Your task to perform on an android device: turn off location history Image 0: 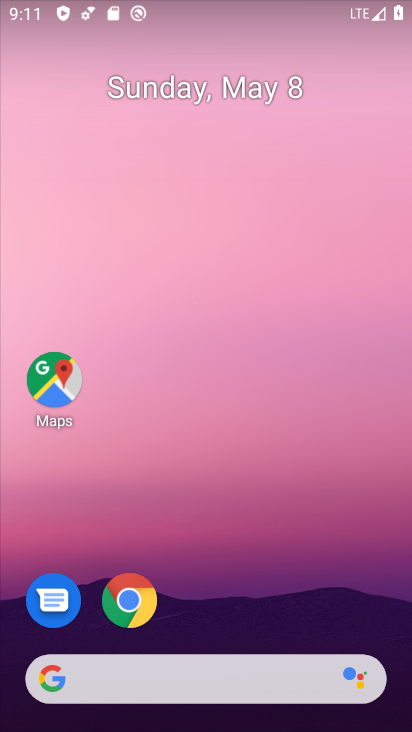
Step 0: click (58, 382)
Your task to perform on an android device: turn off location history Image 1: 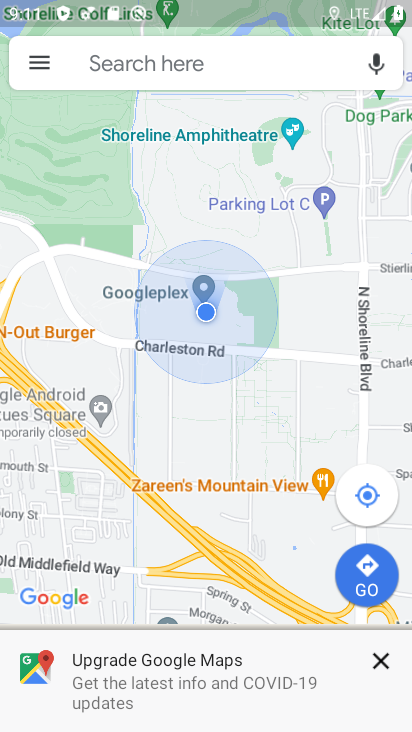
Step 1: click (37, 63)
Your task to perform on an android device: turn off location history Image 2: 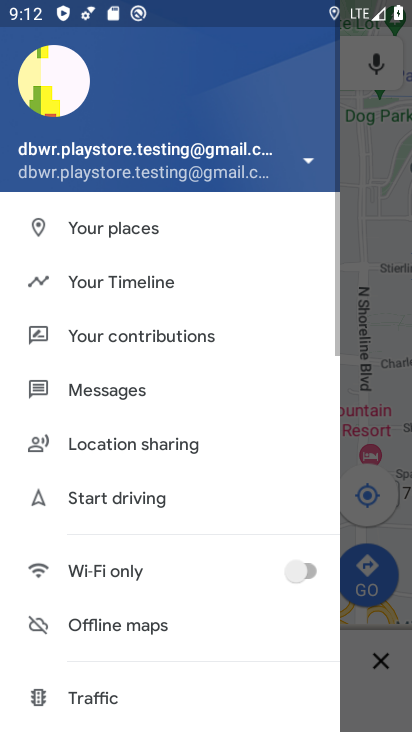
Step 2: click (75, 277)
Your task to perform on an android device: turn off location history Image 3: 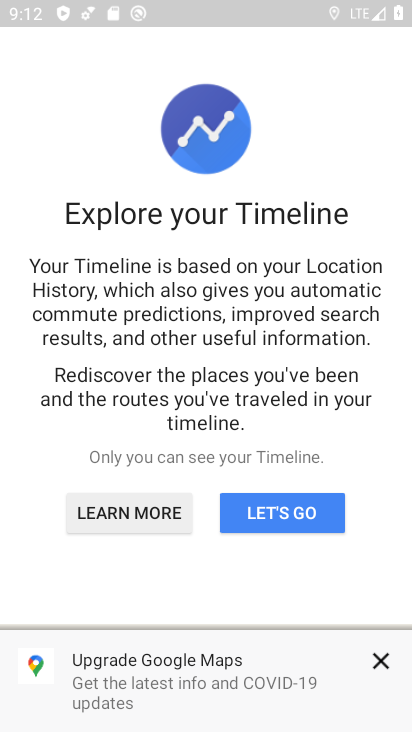
Step 3: click (275, 498)
Your task to perform on an android device: turn off location history Image 4: 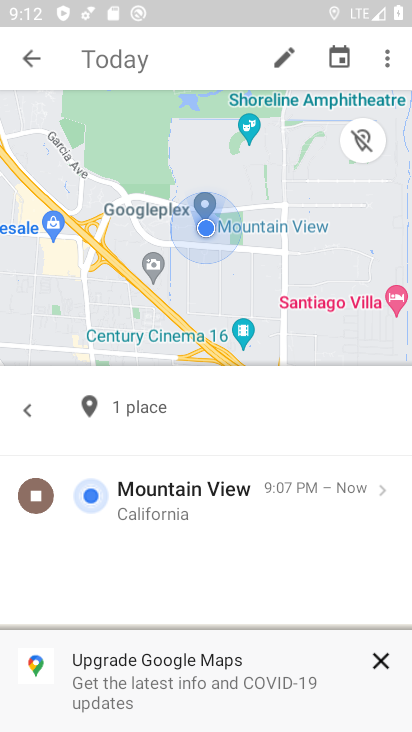
Step 4: click (382, 59)
Your task to perform on an android device: turn off location history Image 5: 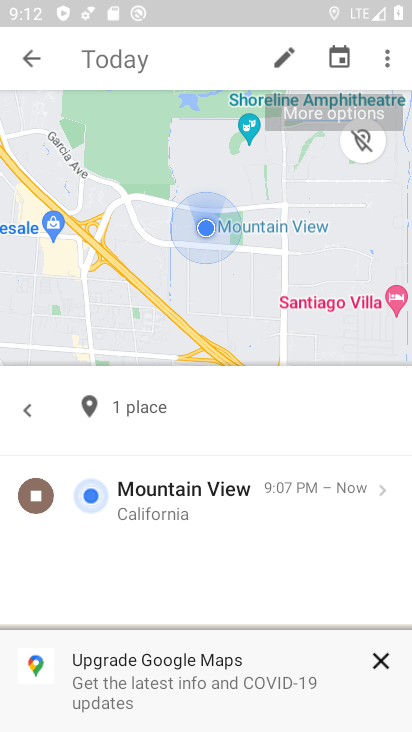
Step 5: click (392, 58)
Your task to perform on an android device: turn off location history Image 6: 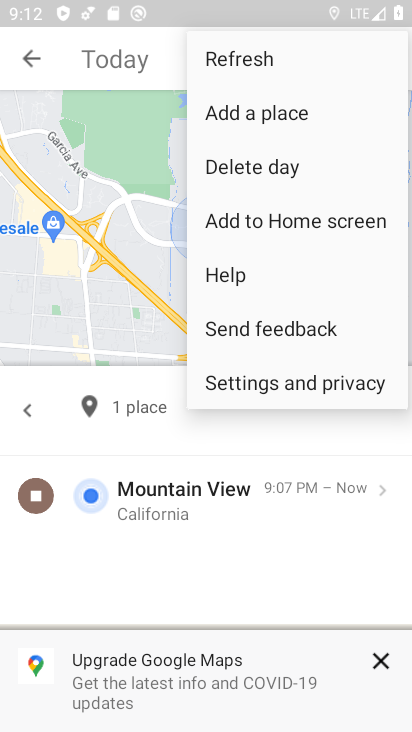
Step 6: click (256, 396)
Your task to perform on an android device: turn off location history Image 7: 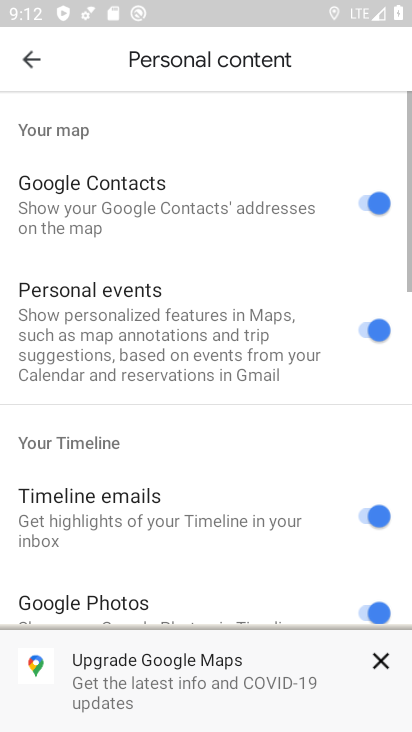
Step 7: drag from (149, 534) to (108, 76)
Your task to perform on an android device: turn off location history Image 8: 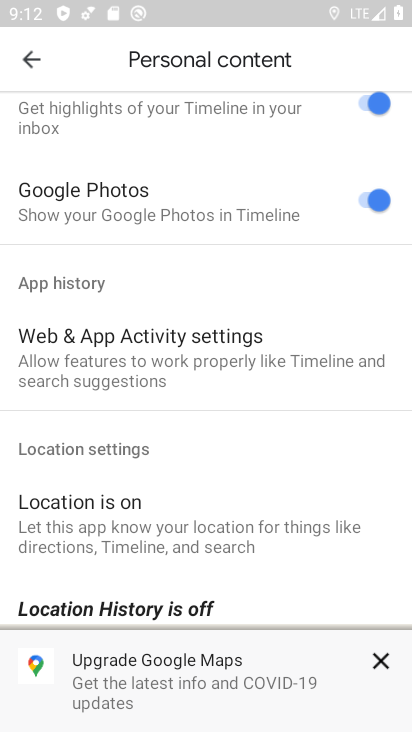
Step 8: drag from (112, 490) to (115, 147)
Your task to perform on an android device: turn off location history Image 9: 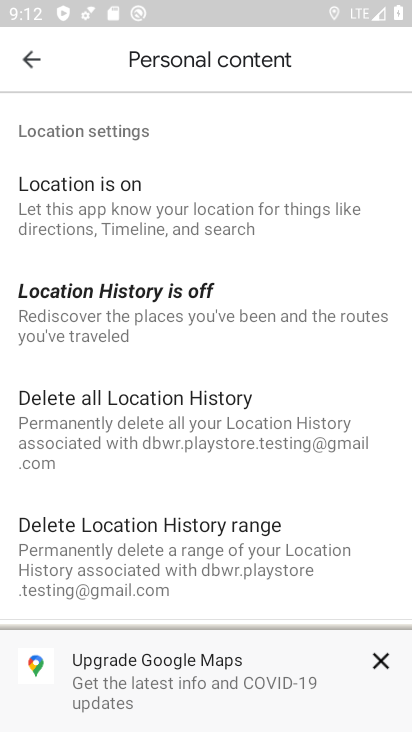
Step 9: click (97, 311)
Your task to perform on an android device: turn off location history Image 10: 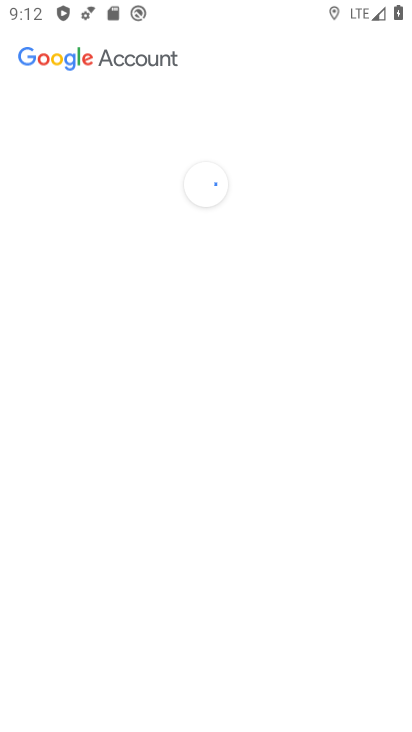
Step 10: click (136, 294)
Your task to perform on an android device: turn off location history Image 11: 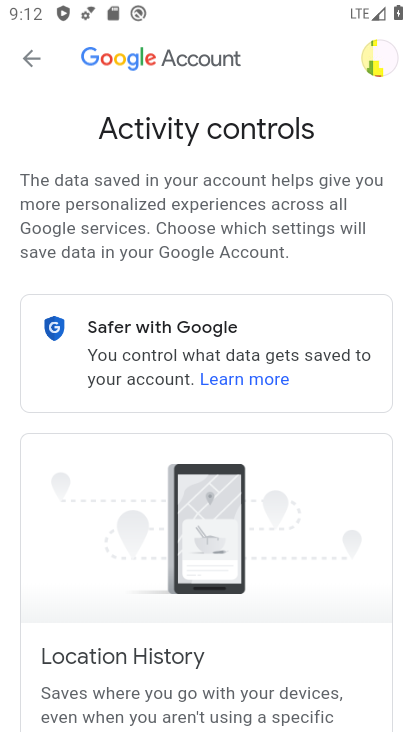
Step 11: task complete